Your task to perform on an android device: see tabs open on other devices in the chrome app Image 0: 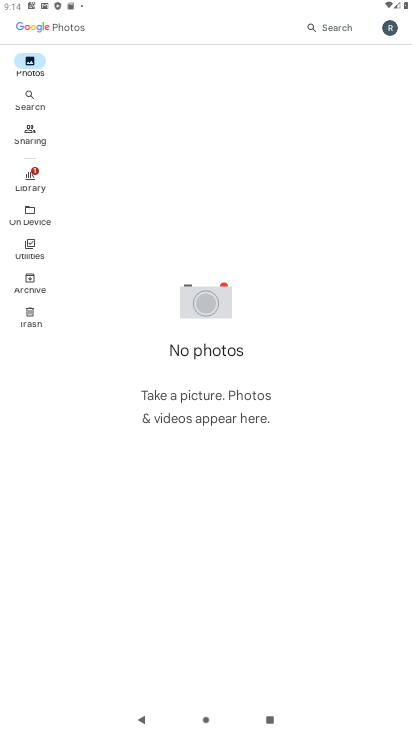
Step 0: drag from (131, 578) to (166, 330)
Your task to perform on an android device: see tabs open on other devices in the chrome app Image 1: 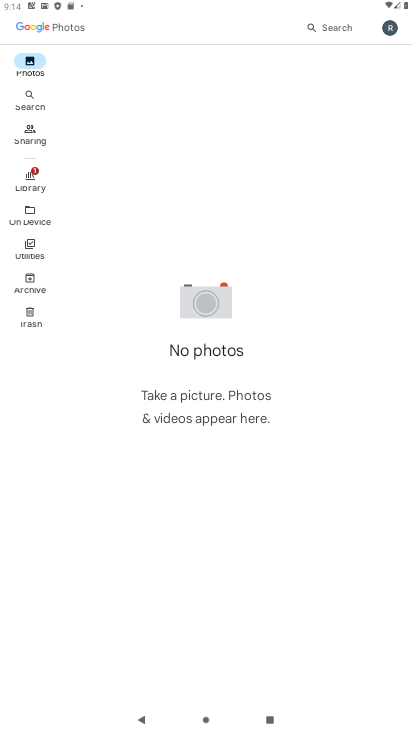
Step 1: press home button
Your task to perform on an android device: see tabs open on other devices in the chrome app Image 2: 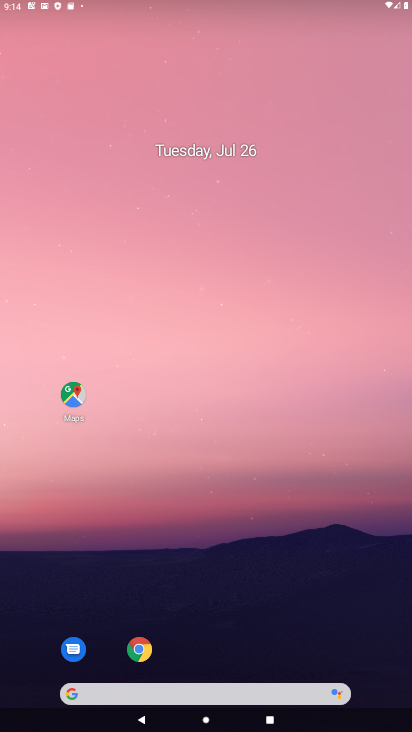
Step 2: drag from (170, 635) to (301, 187)
Your task to perform on an android device: see tabs open on other devices in the chrome app Image 3: 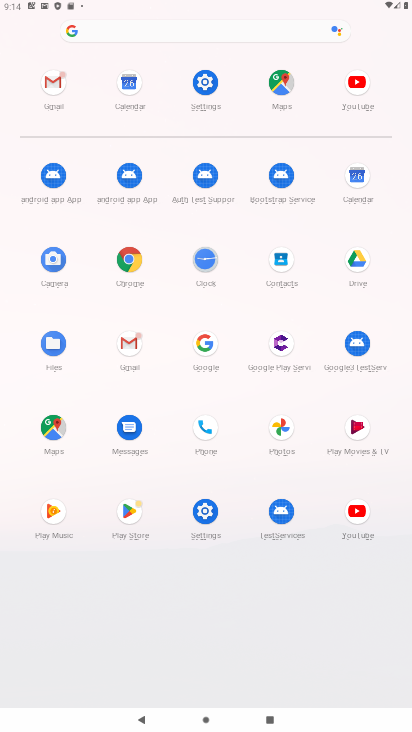
Step 3: click (130, 270)
Your task to perform on an android device: see tabs open on other devices in the chrome app Image 4: 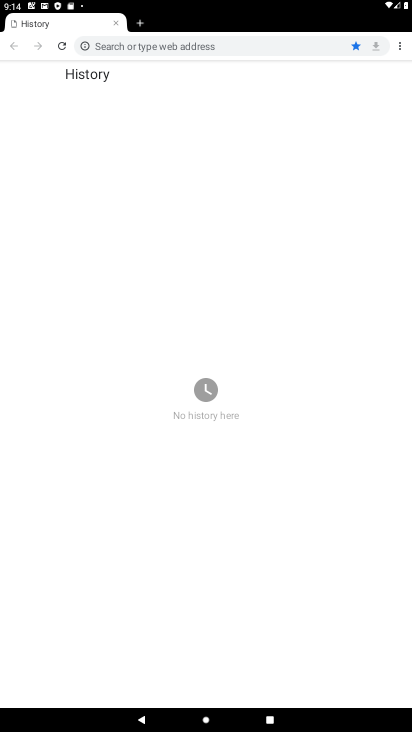
Step 4: task complete